Your task to perform on an android device: Go to location settings Image 0: 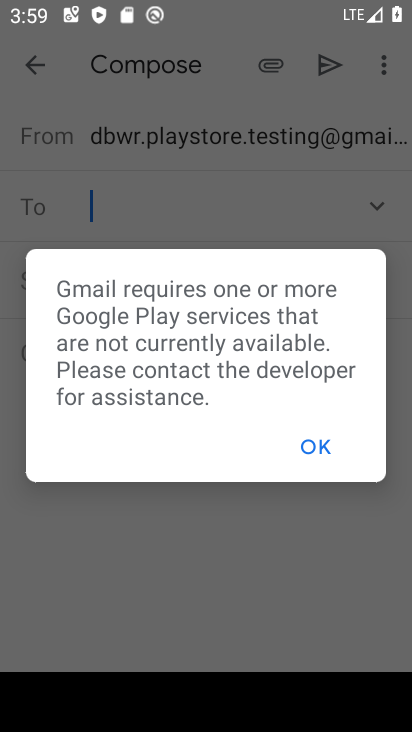
Step 0: press home button
Your task to perform on an android device: Go to location settings Image 1: 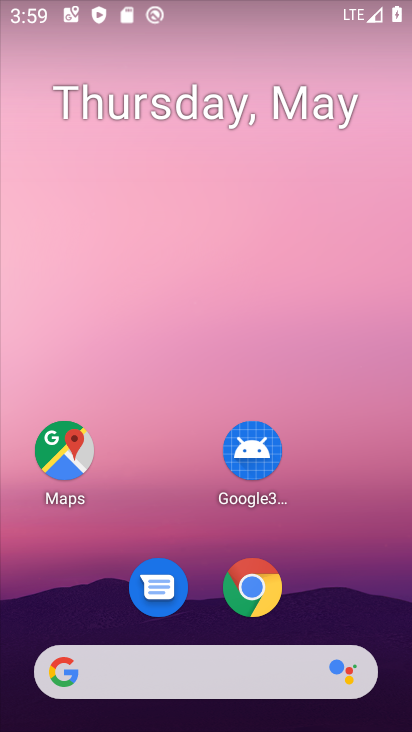
Step 1: drag from (174, 599) to (65, 142)
Your task to perform on an android device: Go to location settings Image 2: 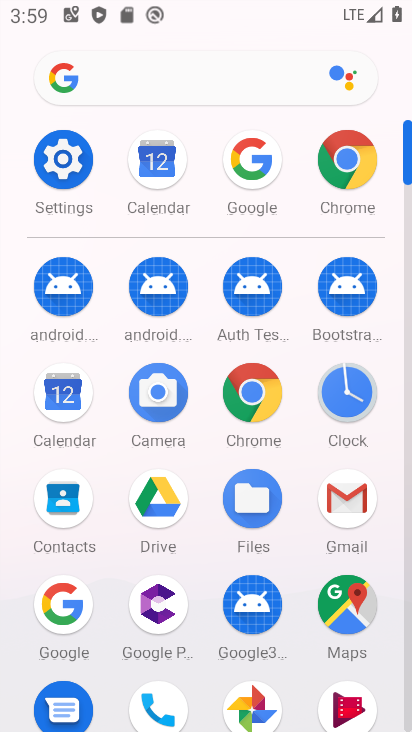
Step 2: drag from (235, 395) to (182, 129)
Your task to perform on an android device: Go to location settings Image 3: 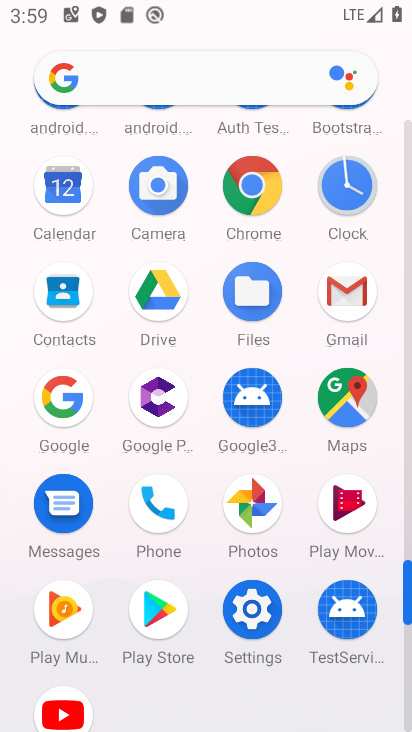
Step 3: click (279, 607)
Your task to perform on an android device: Go to location settings Image 4: 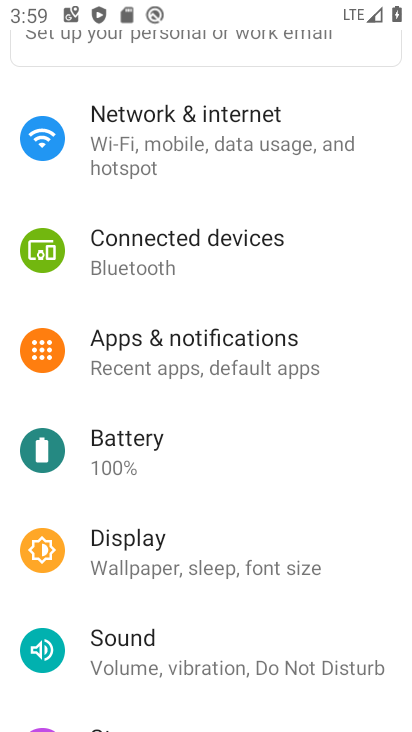
Step 4: drag from (265, 572) to (242, 419)
Your task to perform on an android device: Go to location settings Image 5: 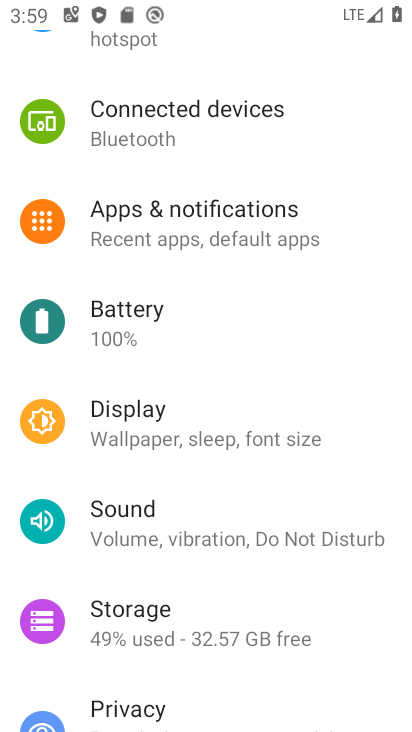
Step 5: drag from (241, 524) to (214, 349)
Your task to perform on an android device: Go to location settings Image 6: 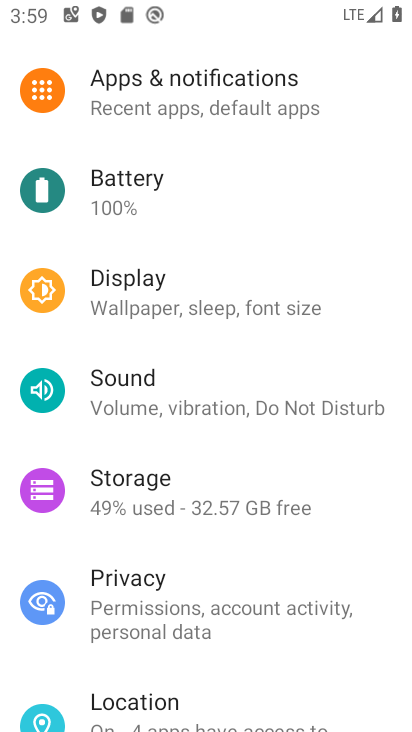
Step 6: drag from (217, 581) to (208, 443)
Your task to perform on an android device: Go to location settings Image 7: 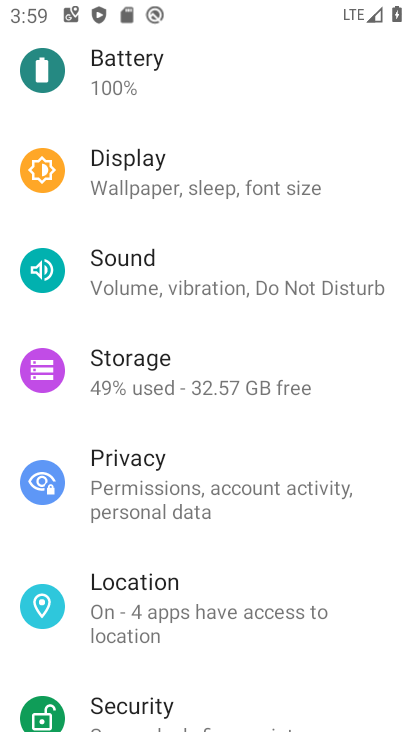
Step 7: drag from (208, 500) to (194, 389)
Your task to perform on an android device: Go to location settings Image 8: 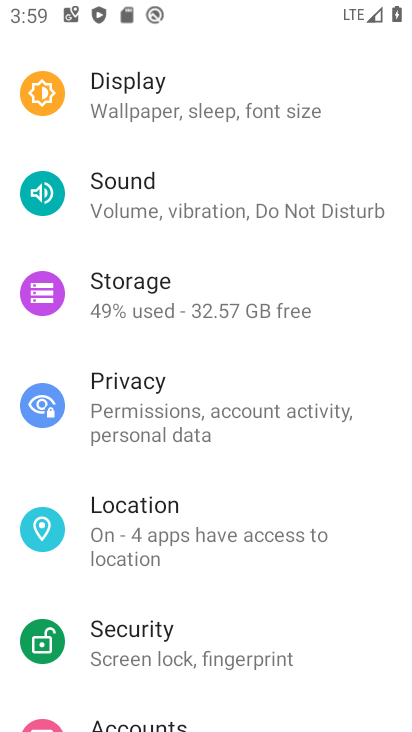
Step 8: click (199, 507)
Your task to perform on an android device: Go to location settings Image 9: 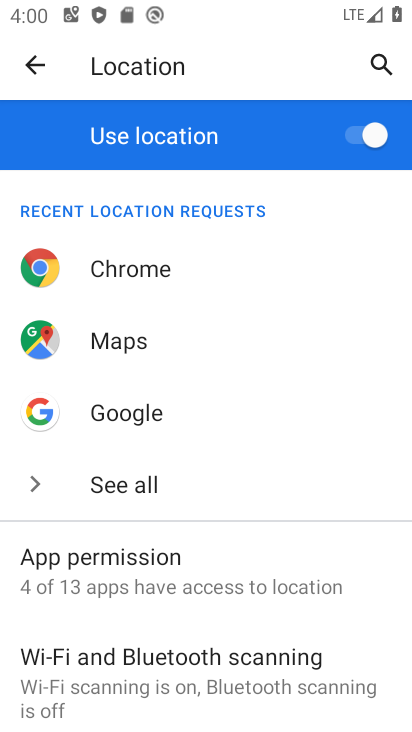
Step 9: task complete